Your task to perform on an android device: delete the emails in spam in the gmail app Image 0: 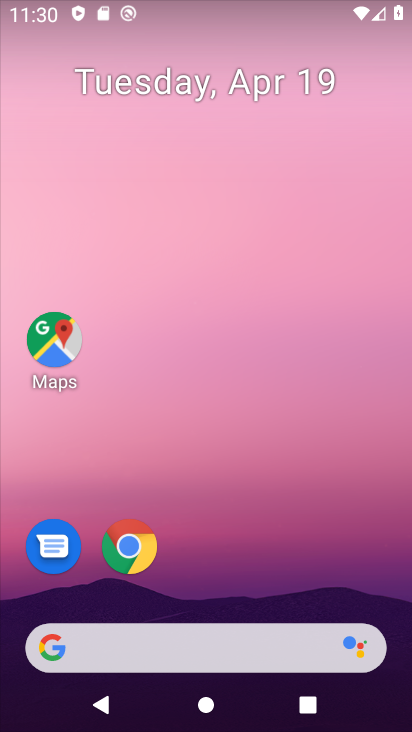
Step 0: drag from (396, 587) to (337, 34)
Your task to perform on an android device: delete the emails in spam in the gmail app Image 1: 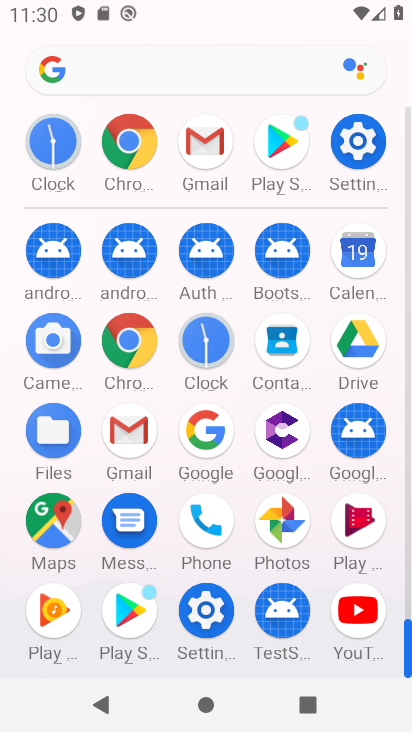
Step 1: drag from (8, 553) to (8, 390)
Your task to perform on an android device: delete the emails in spam in the gmail app Image 2: 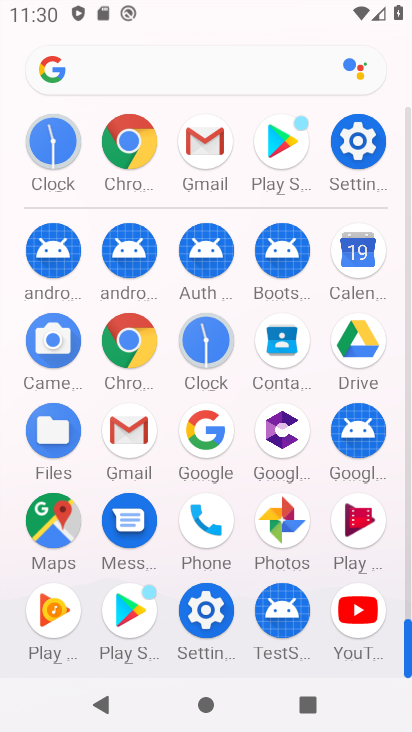
Step 2: click (200, 136)
Your task to perform on an android device: delete the emails in spam in the gmail app Image 3: 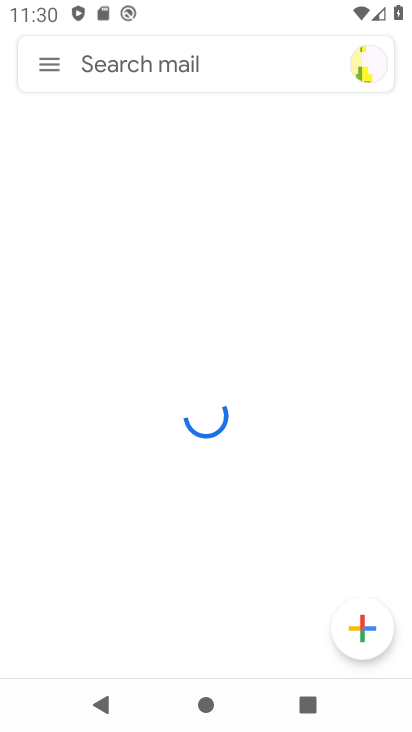
Step 3: click (45, 55)
Your task to perform on an android device: delete the emails in spam in the gmail app Image 4: 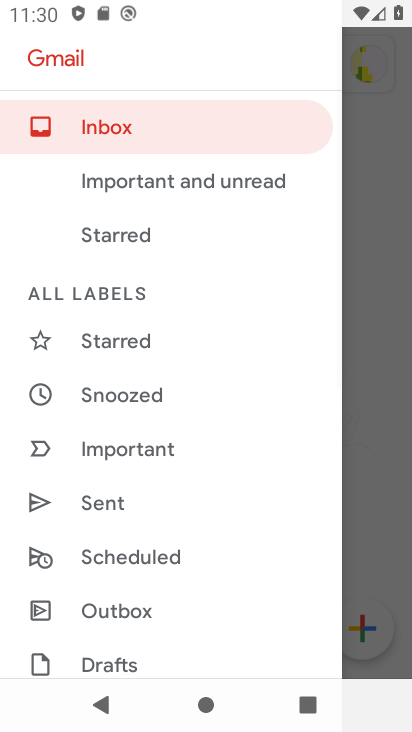
Step 4: drag from (182, 537) to (199, 164)
Your task to perform on an android device: delete the emails in spam in the gmail app Image 5: 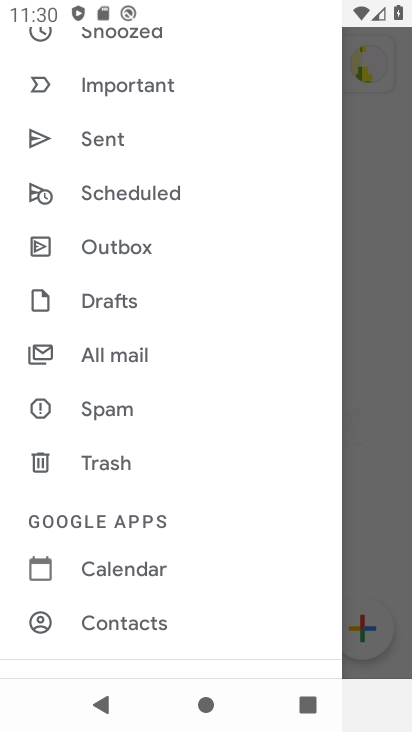
Step 5: click (111, 405)
Your task to perform on an android device: delete the emails in spam in the gmail app Image 6: 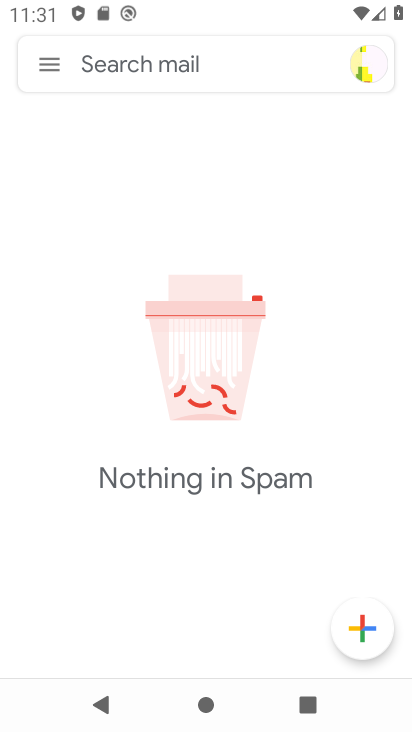
Step 6: task complete